Your task to perform on an android device: Find coffee shops on Maps Image 0: 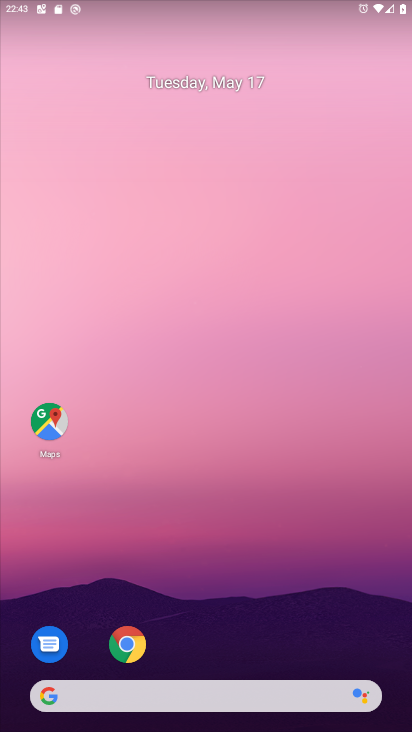
Step 0: press home button
Your task to perform on an android device: Find coffee shops on Maps Image 1: 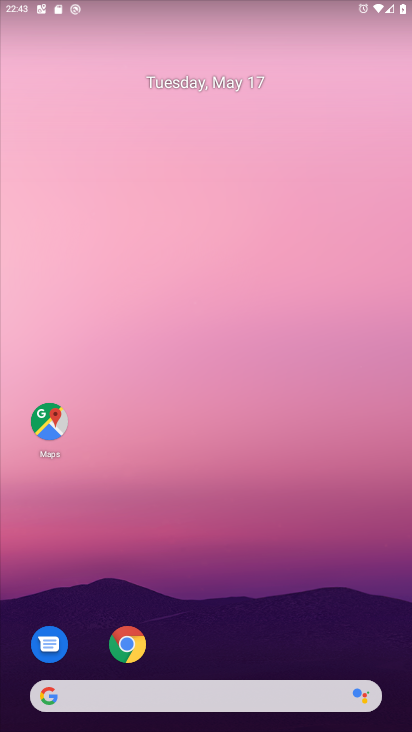
Step 1: press home button
Your task to perform on an android device: Find coffee shops on Maps Image 2: 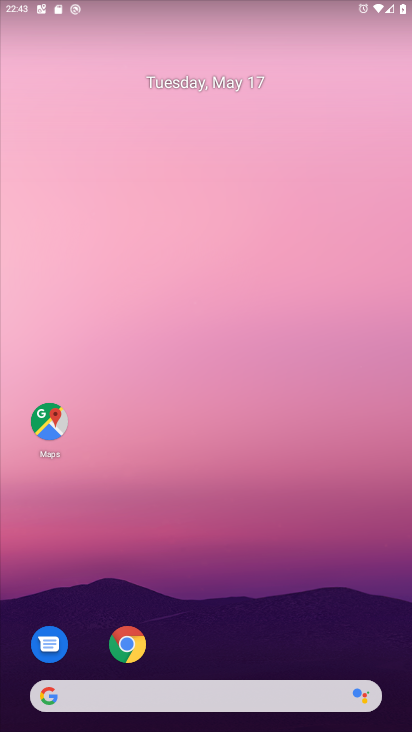
Step 2: click (44, 412)
Your task to perform on an android device: Find coffee shops on Maps Image 3: 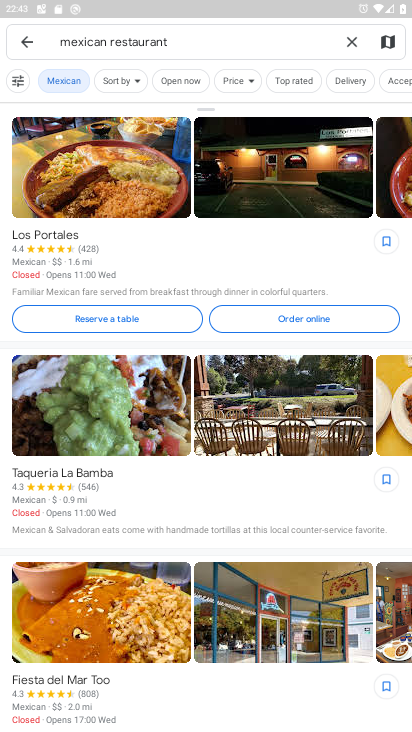
Step 3: click (347, 40)
Your task to perform on an android device: Find coffee shops on Maps Image 4: 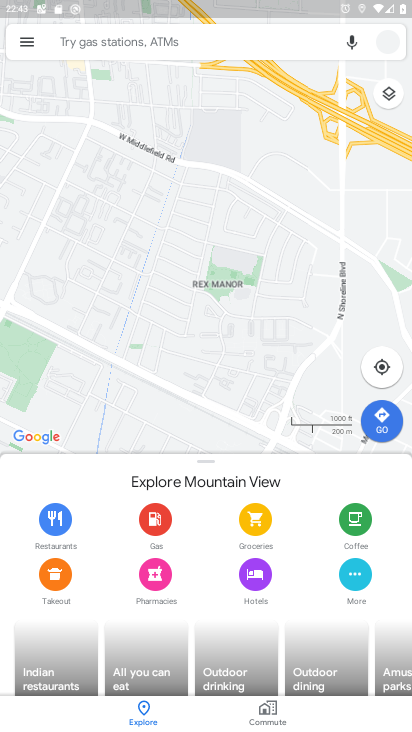
Step 4: click (108, 37)
Your task to perform on an android device: Find coffee shops on Maps Image 5: 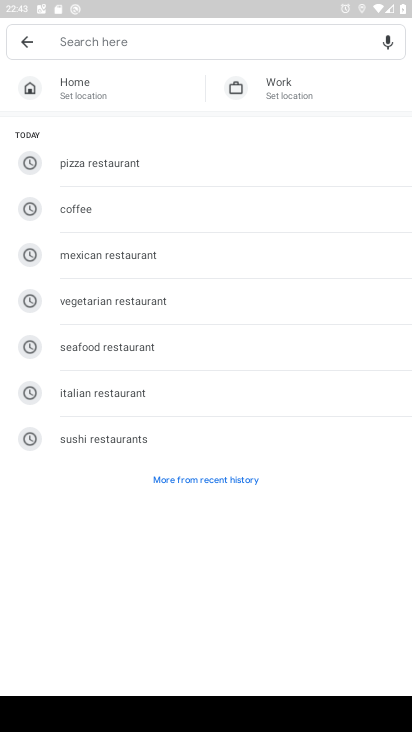
Step 5: click (104, 211)
Your task to perform on an android device: Find coffee shops on Maps Image 6: 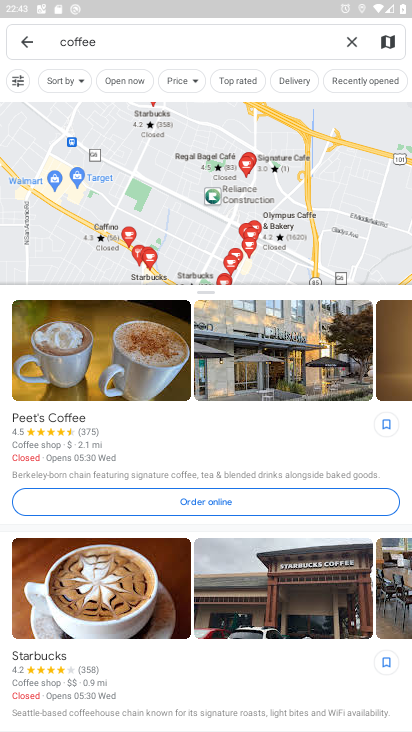
Step 6: task complete